Your task to perform on an android device: Open the stopwatch Image 0: 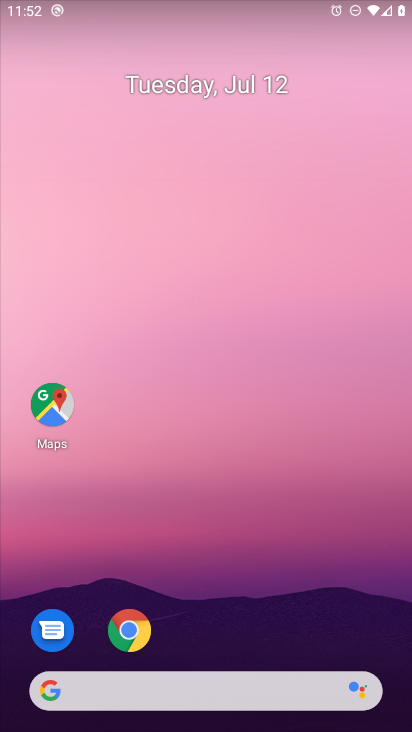
Step 0: drag from (295, 623) to (326, 161)
Your task to perform on an android device: Open the stopwatch Image 1: 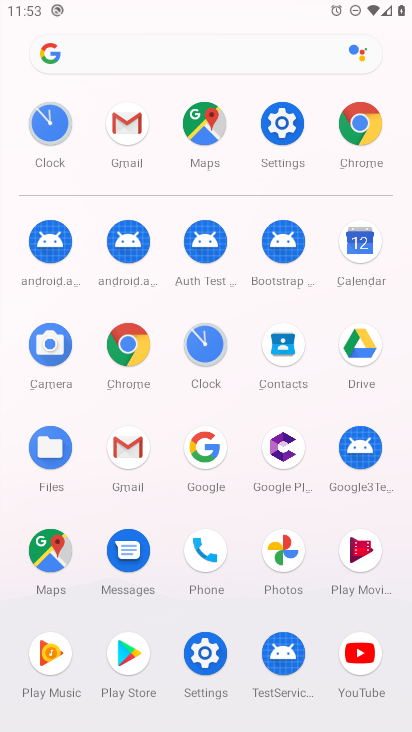
Step 1: click (209, 346)
Your task to perform on an android device: Open the stopwatch Image 2: 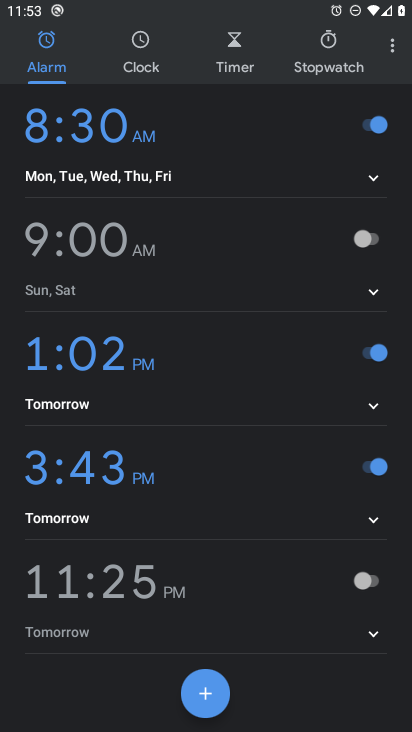
Step 2: click (337, 44)
Your task to perform on an android device: Open the stopwatch Image 3: 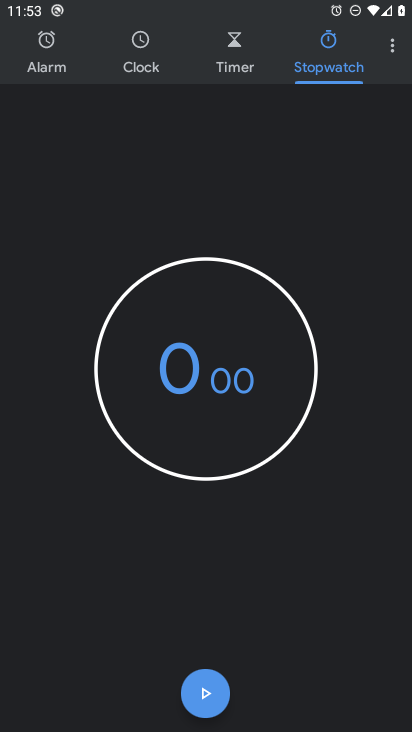
Step 3: task complete